Your task to perform on an android device: delete the emails in spam in the gmail app Image 0: 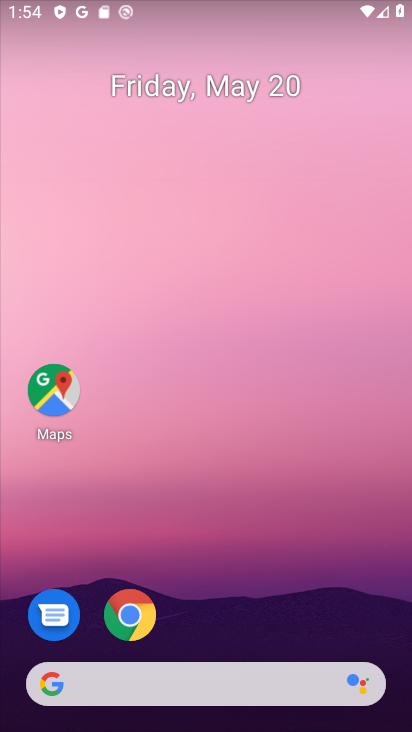
Step 0: drag from (337, 534) to (284, 188)
Your task to perform on an android device: delete the emails in spam in the gmail app Image 1: 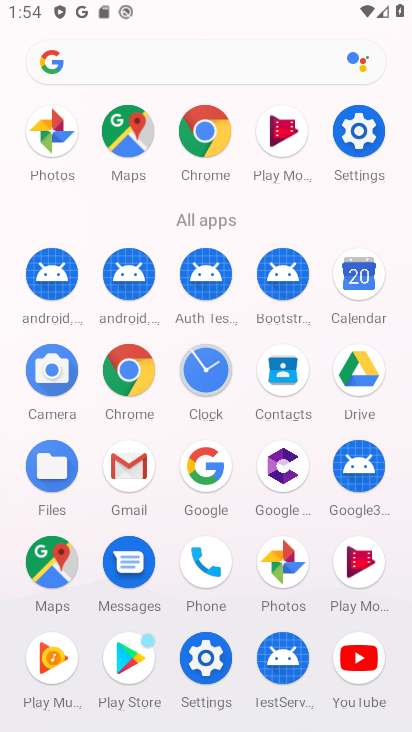
Step 1: click (133, 451)
Your task to perform on an android device: delete the emails in spam in the gmail app Image 2: 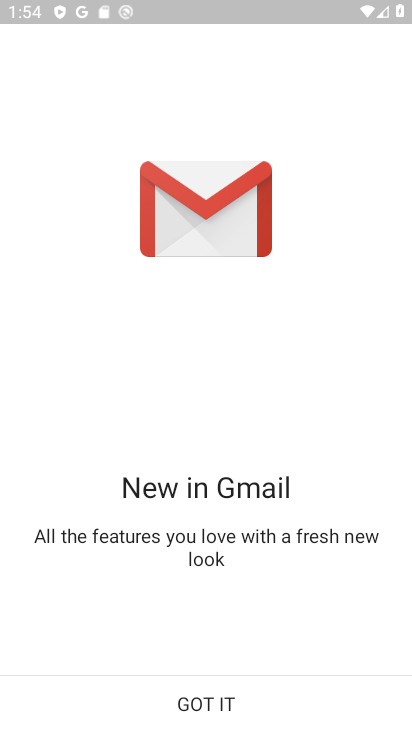
Step 2: click (201, 697)
Your task to perform on an android device: delete the emails in spam in the gmail app Image 3: 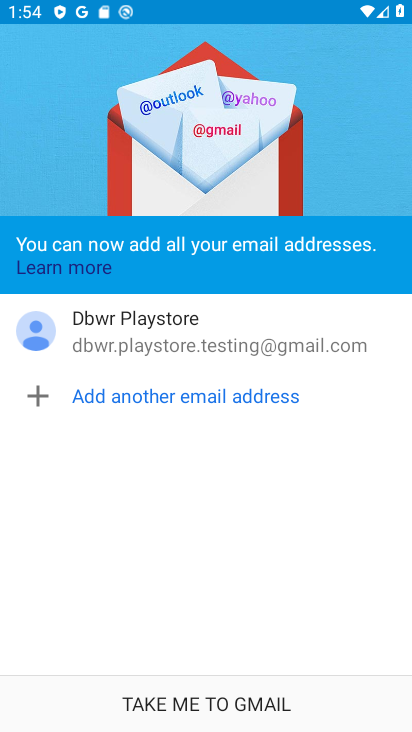
Step 3: click (202, 699)
Your task to perform on an android device: delete the emails in spam in the gmail app Image 4: 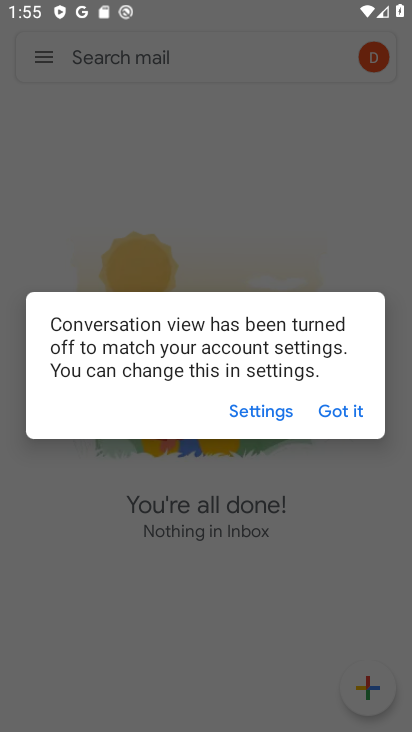
Step 4: click (367, 416)
Your task to perform on an android device: delete the emails in spam in the gmail app Image 5: 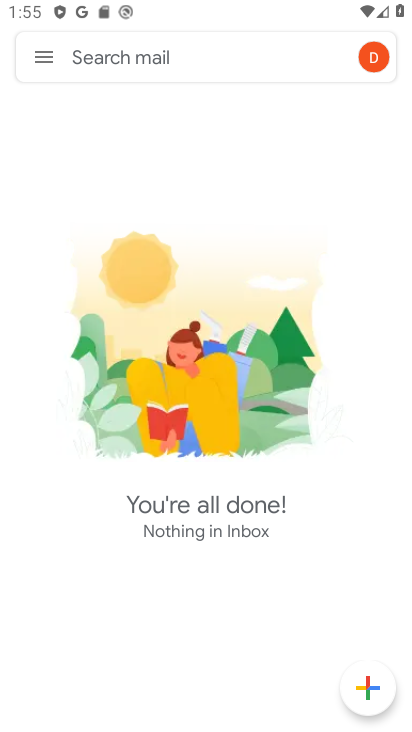
Step 5: click (41, 72)
Your task to perform on an android device: delete the emails in spam in the gmail app Image 6: 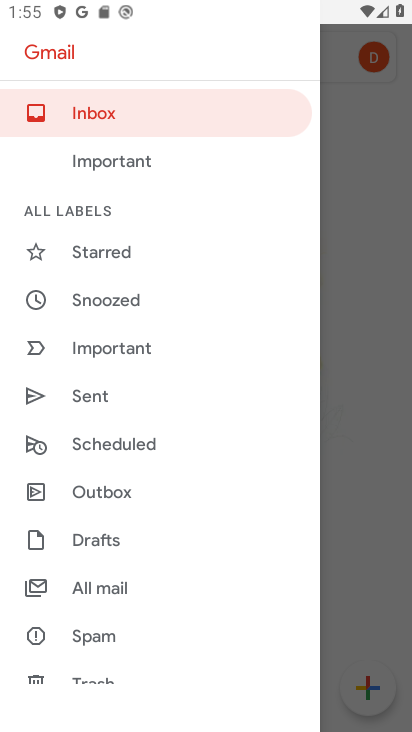
Step 6: drag from (192, 598) to (176, 272)
Your task to perform on an android device: delete the emails in spam in the gmail app Image 7: 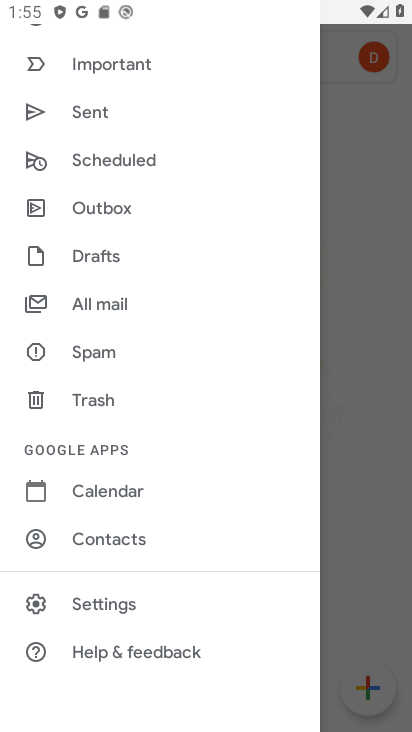
Step 7: click (143, 346)
Your task to perform on an android device: delete the emails in spam in the gmail app Image 8: 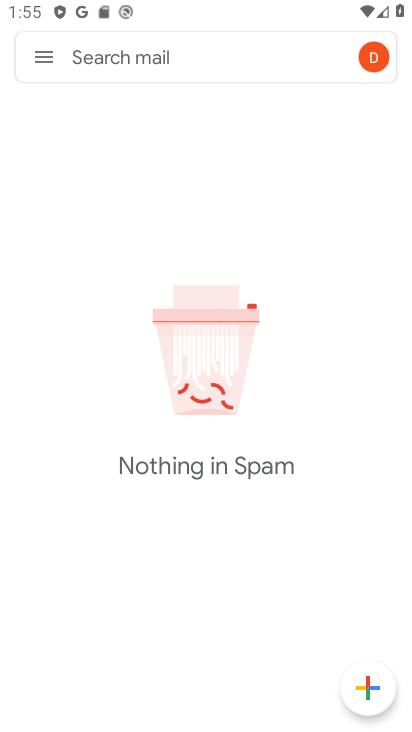
Step 8: task complete